Your task to perform on an android device: Go to privacy settings Image 0: 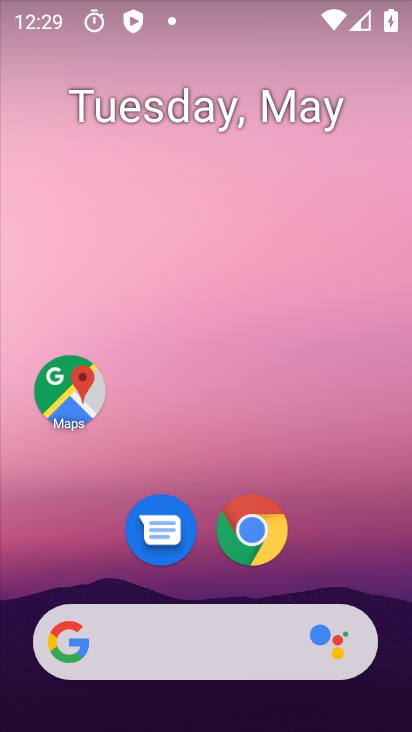
Step 0: drag from (326, 512) to (247, 44)
Your task to perform on an android device: Go to privacy settings Image 1: 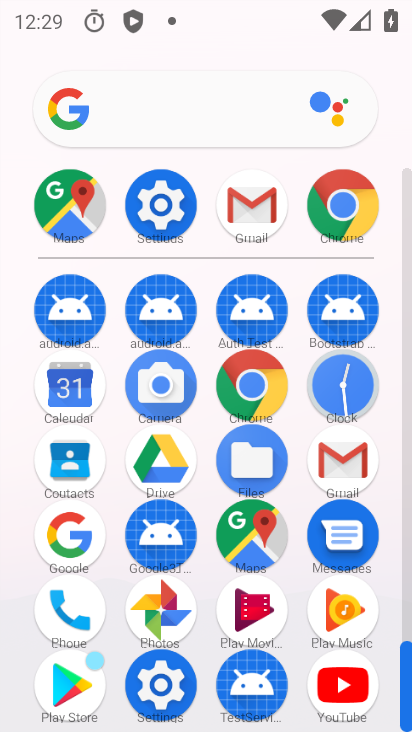
Step 1: drag from (13, 596) to (12, 271)
Your task to perform on an android device: Go to privacy settings Image 2: 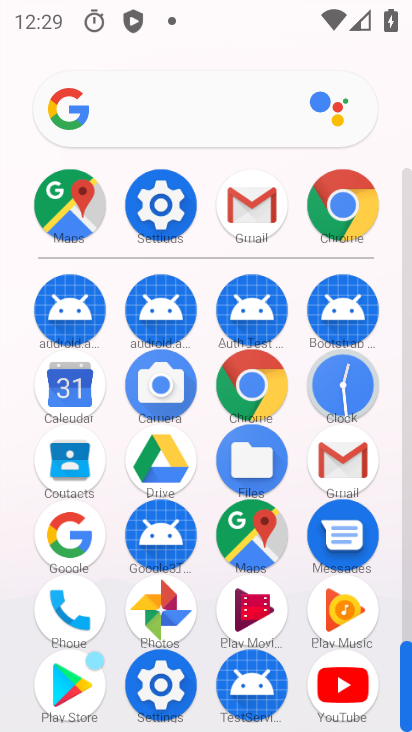
Step 2: click (154, 681)
Your task to perform on an android device: Go to privacy settings Image 3: 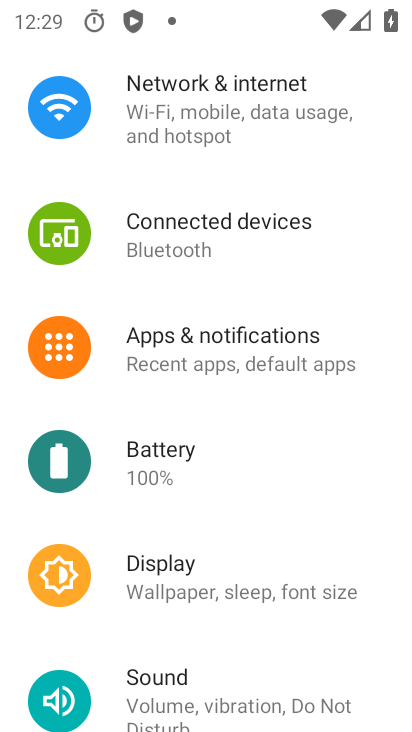
Step 3: press back button
Your task to perform on an android device: Go to privacy settings Image 4: 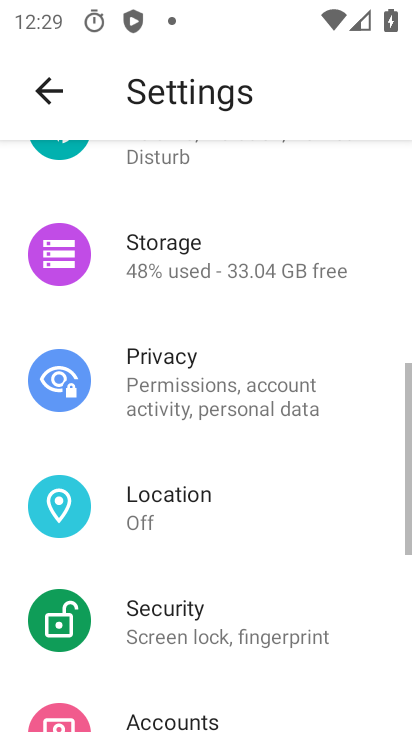
Step 4: press back button
Your task to perform on an android device: Go to privacy settings Image 5: 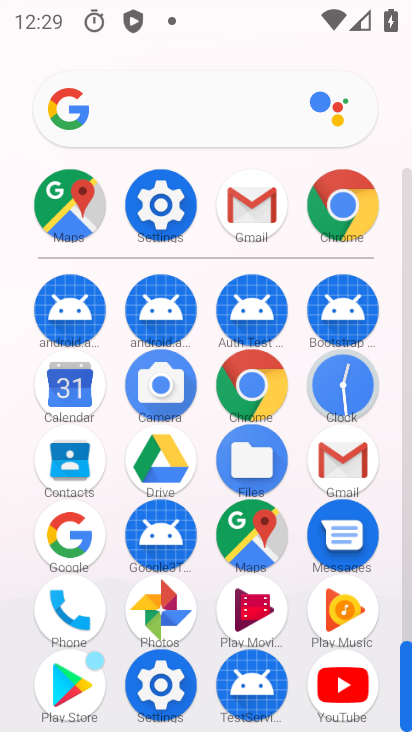
Step 5: click (250, 377)
Your task to perform on an android device: Go to privacy settings Image 6: 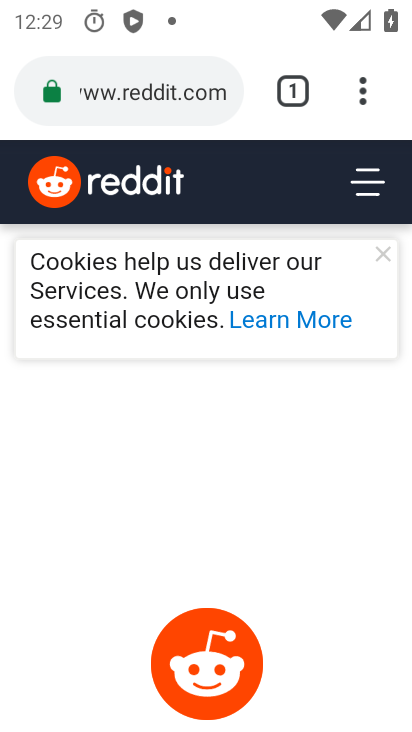
Step 6: drag from (360, 94) to (87, 597)
Your task to perform on an android device: Go to privacy settings Image 7: 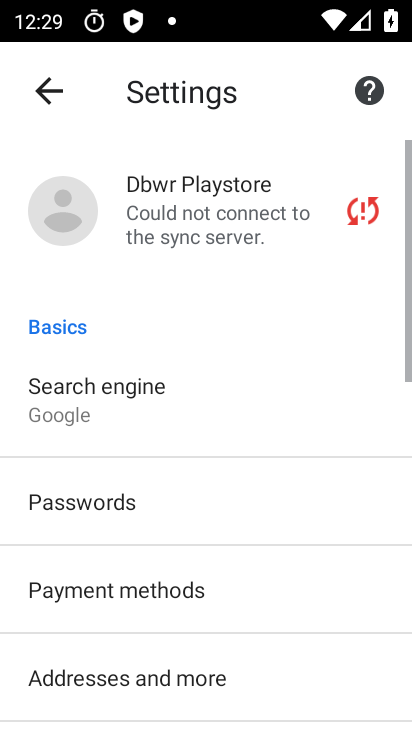
Step 7: click (87, 560)
Your task to perform on an android device: Go to privacy settings Image 8: 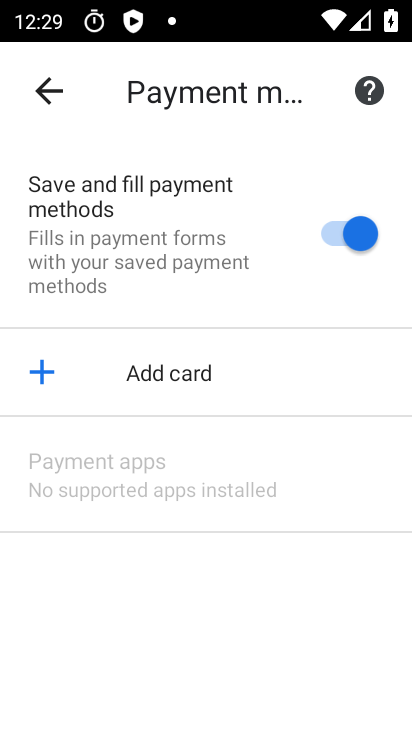
Step 8: drag from (277, 529) to (256, 278)
Your task to perform on an android device: Go to privacy settings Image 9: 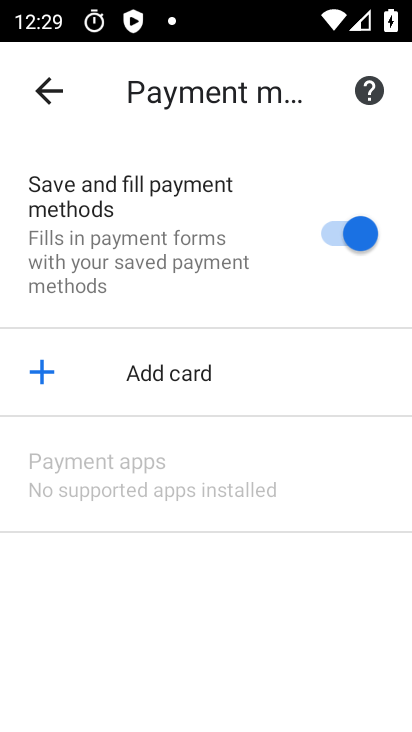
Step 9: click (57, 84)
Your task to perform on an android device: Go to privacy settings Image 10: 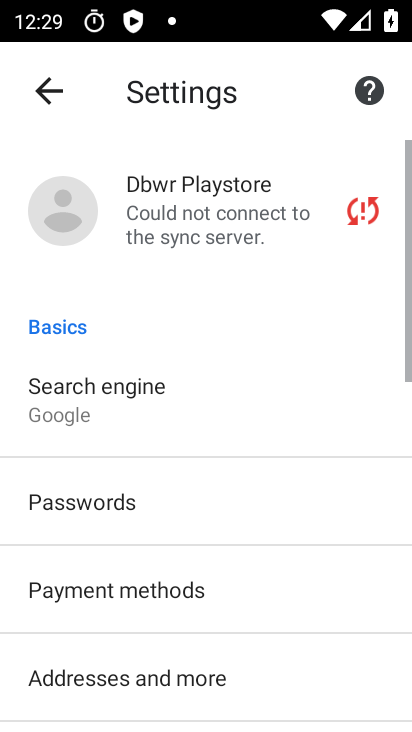
Step 10: drag from (200, 552) to (202, 171)
Your task to perform on an android device: Go to privacy settings Image 11: 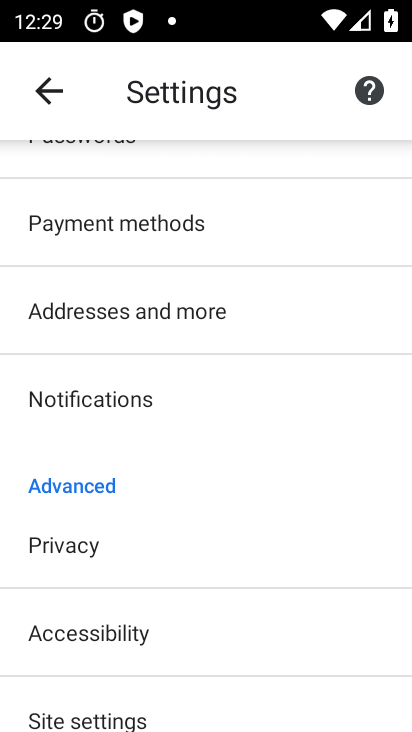
Step 11: click (94, 556)
Your task to perform on an android device: Go to privacy settings Image 12: 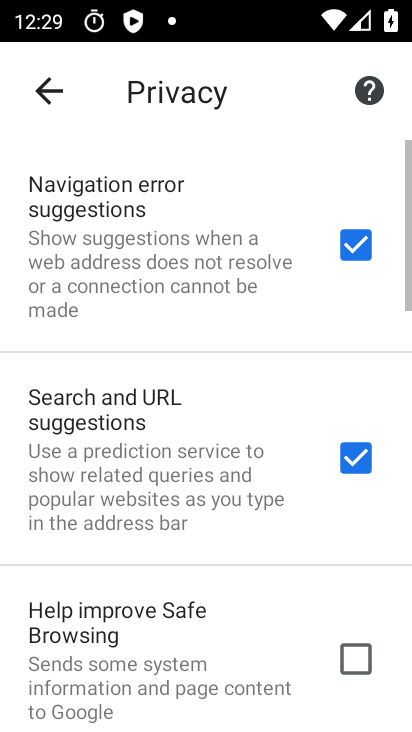
Step 12: task complete